Your task to perform on an android device: Go to notification settings Image 0: 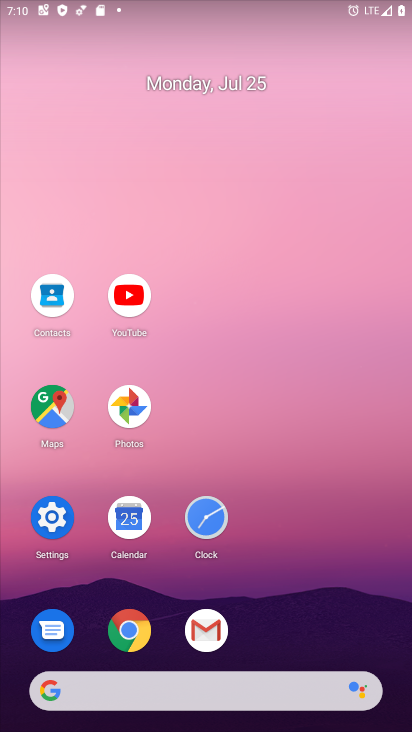
Step 0: click (46, 513)
Your task to perform on an android device: Go to notification settings Image 1: 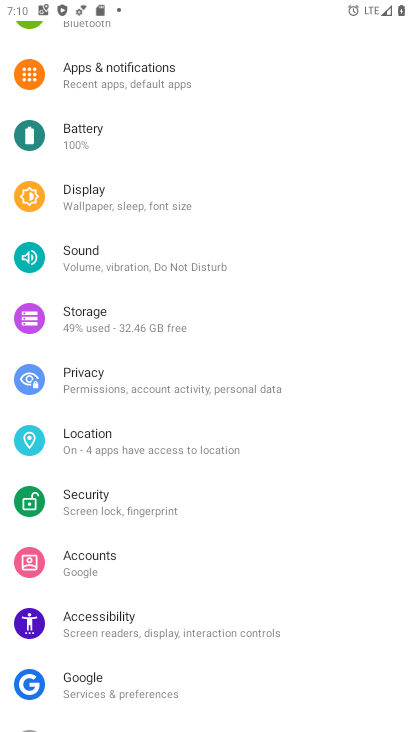
Step 1: click (128, 74)
Your task to perform on an android device: Go to notification settings Image 2: 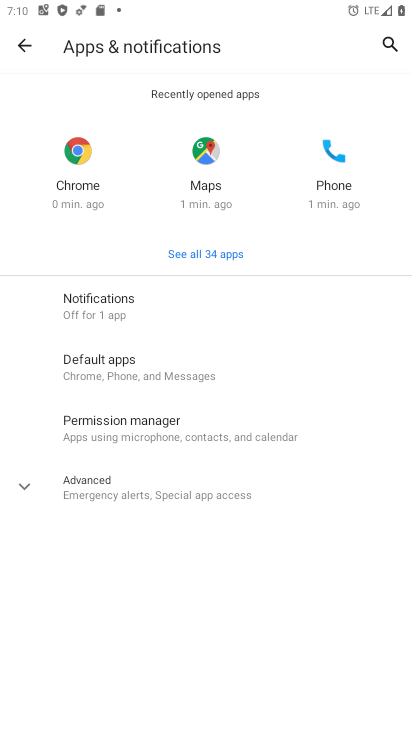
Step 2: task complete